Your task to perform on an android device: Clear all items from cart on bestbuy.com. Add logitech g pro to the cart on bestbuy.com Image 0: 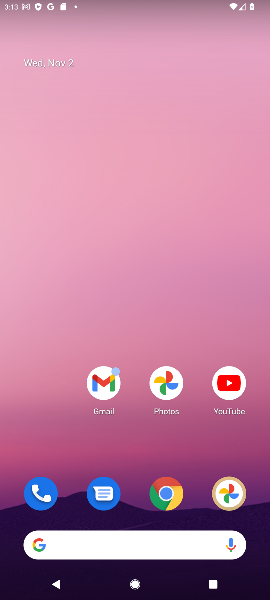
Step 0: drag from (136, 466) to (144, 152)
Your task to perform on an android device: Clear all items from cart on bestbuy.com. Add logitech g pro to the cart on bestbuy.com Image 1: 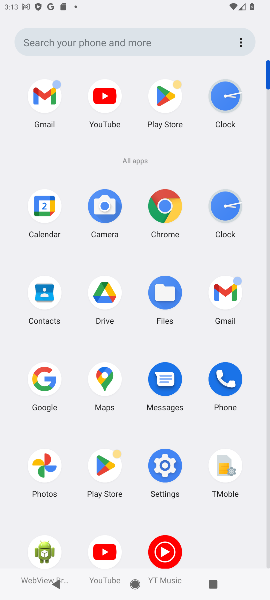
Step 1: click (38, 382)
Your task to perform on an android device: Clear all items from cart on bestbuy.com. Add logitech g pro to the cart on bestbuy.com Image 2: 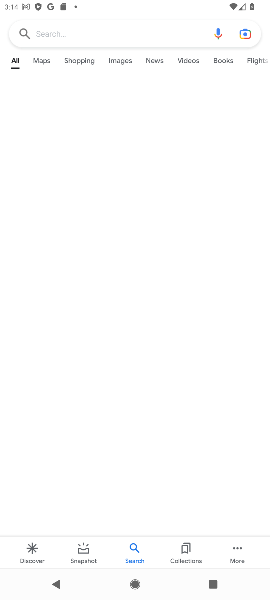
Step 2: click (110, 27)
Your task to perform on an android device: Clear all items from cart on bestbuy.com. Add logitech g pro to the cart on bestbuy.com Image 3: 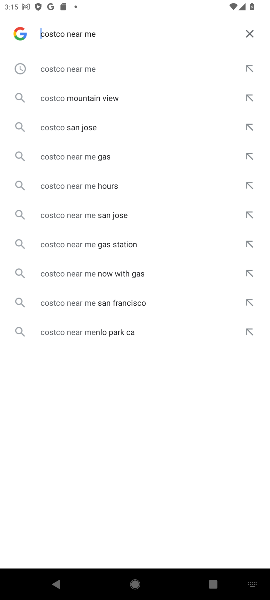
Step 3: click (248, 38)
Your task to perform on an android device: Clear all items from cart on bestbuy.com. Add logitech g pro to the cart on bestbuy.com Image 4: 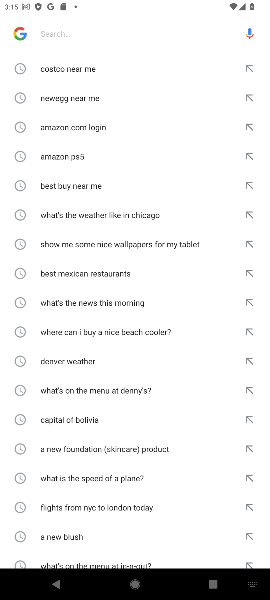
Step 4: click (50, 28)
Your task to perform on an android device: Clear all items from cart on bestbuy.com. Add logitech g pro to the cart on bestbuy.com Image 5: 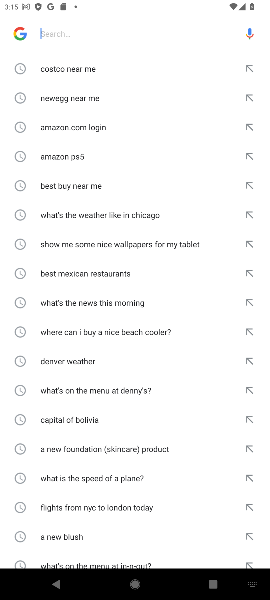
Step 5: type "bestbuy "
Your task to perform on an android device: Clear all items from cart on bestbuy.com. Add logitech g pro to the cart on bestbuy.com Image 6: 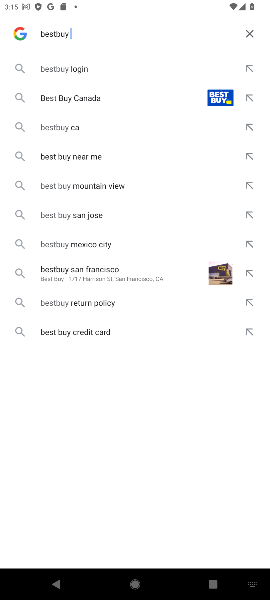
Step 6: click (57, 64)
Your task to perform on an android device: Clear all items from cart on bestbuy.com. Add logitech g pro to the cart on bestbuy.com Image 7: 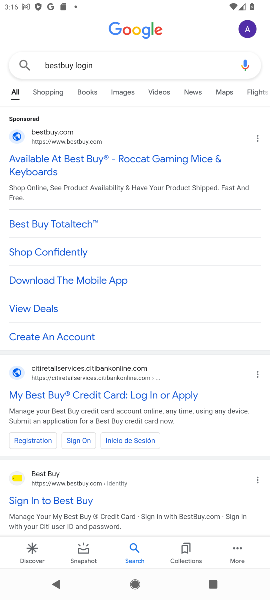
Step 7: click (17, 478)
Your task to perform on an android device: Clear all items from cart on bestbuy.com. Add logitech g pro to the cart on bestbuy.com Image 8: 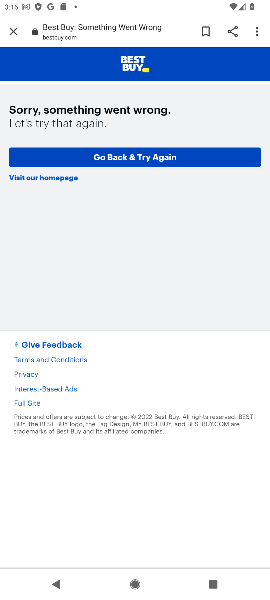
Step 8: click (92, 161)
Your task to perform on an android device: Clear all items from cart on bestbuy.com. Add logitech g pro to the cart on bestbuy.com Image 9: 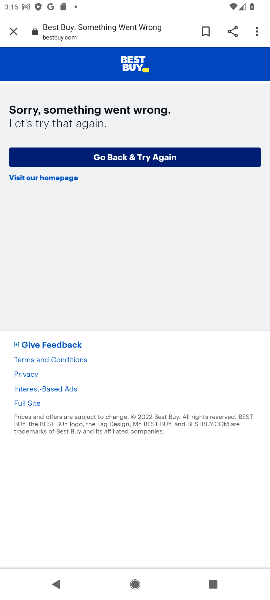
Step 9: press back button
Your task to perform on an android device: Clear all items from cart on bestbuy.com. Add logitech g pro to the cart on bestbuy.com Image 10: 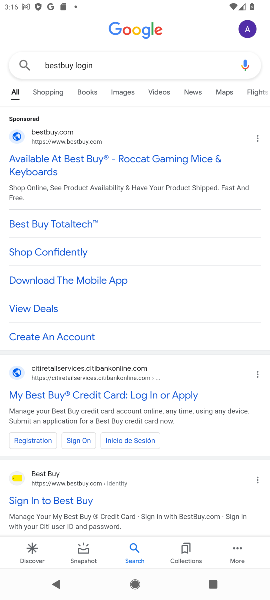
Step 10: click (110, 64)
Your task to perform on an android device: Clear all items from cart on bestbuy.com. Add logitech g pro to the cart on bestbuy.com Image 11: 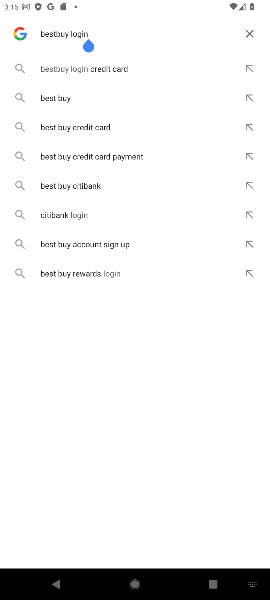
Step 11: click (58, 93)
Your task to perform on an android device: Clear all items from cart on bestbuy.com. Add logitech g pro to the cart on bestbuy.com Image 12: 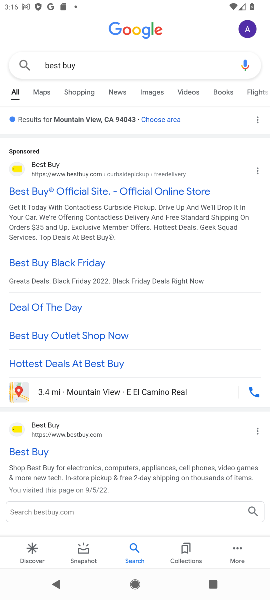
Step 12: click (9, 172)
Your task to perform on an android device: Clear all items from cart on bestbuy.com. Add logitech g pro to the cart on bestbuy.com Image 13: 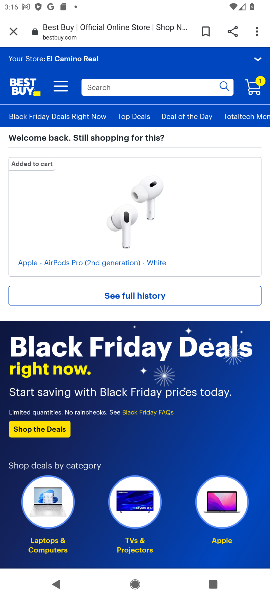
Step 13: click (159, 86)
Your task to perform on an android device: Clear all items from cart on bestbuy.com. Add logitech g pro to the cart on bestbuy.com Image 14: 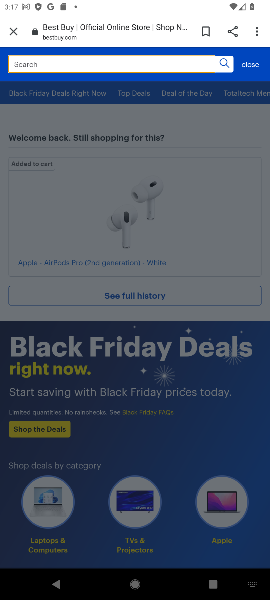
Step 14: click (101, 59)
Your task to perform on an android device: Clear all items from cart on bestbuy.com. Add logitech g pro to the cart on bestbuy.com Image 15: 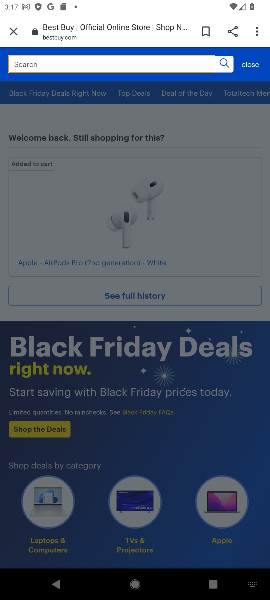
Step 15: type " logitech g pro  "
Your task to perform on an android device: Clear all items from cart on bestbuy.com. Add logitech g pro to the cart on bestbuy.com Image 16: 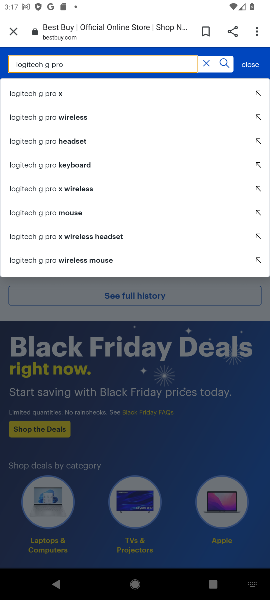
Step 16: click (56, 91)
Your task to perform on an android device: Clear all items from cart on bestbuy.com. Add logitech g pro to the cart on bestbuy.com Image 17: 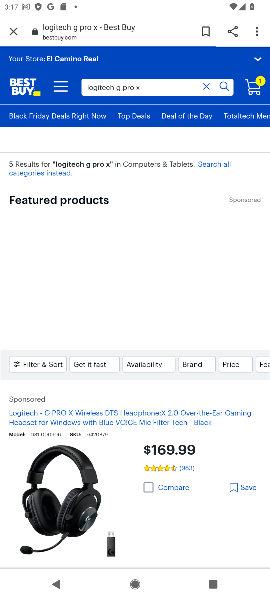
Step 17: drag from (122, 490) to (126, 244)
Your task to perform on an android device: Clear all items from cart on bestbuy.com. Add logitech g pro to the cart on bestbuy.com Image 18: 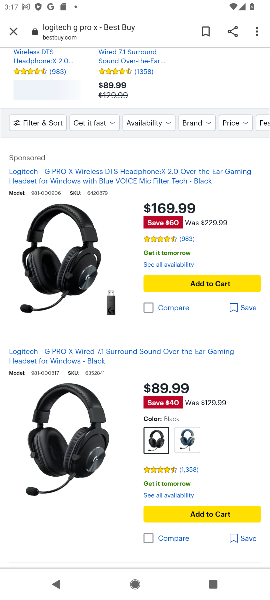
Step 18: click (184, 282)
Your task to perform on an android device: Clear all items from cart on bestbuy.com. Add logitech g pro to the cart on bestbuy.com Image 19: 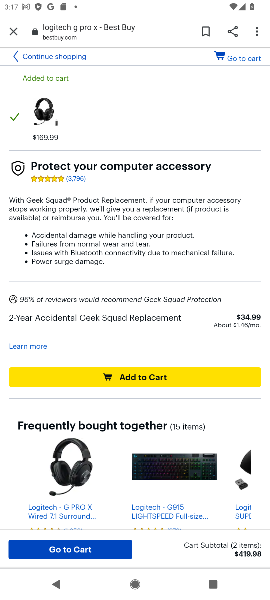
Step 19: click (135, 378)
Your task to perform on an android device: Clear all items from cart on bestbuy.com. Add logitech g pro to the cart on bestbuy.com Image 20: 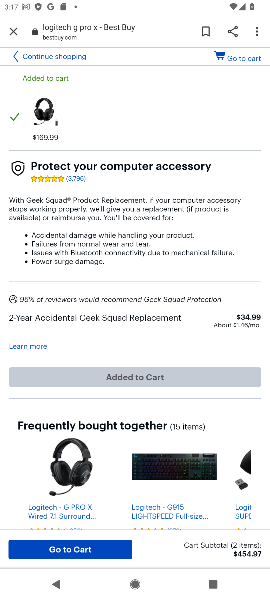
Step 20: task complete